Your task to perform on an android device: Open settings on Google Maps Image 0: 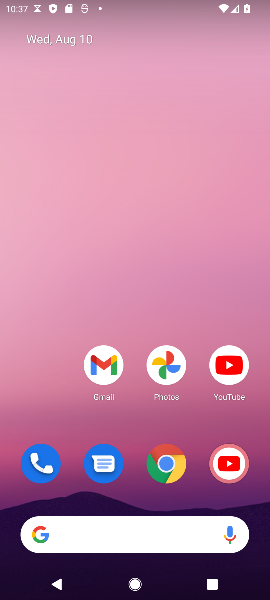
Step 0: drag from (17, 560) to (218, 197)
Your task to perform on an android device: Open settings on Google Maps Image 1: 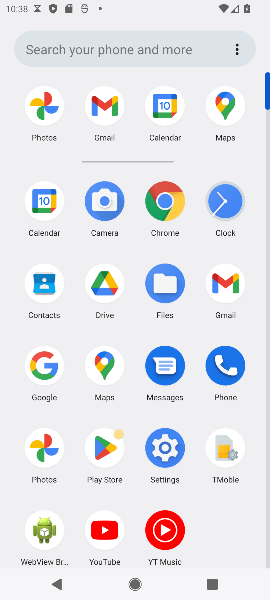
Step 1: click (229, 115)
Your task to perform on an android device: Open settings on Google Maps Image 2: 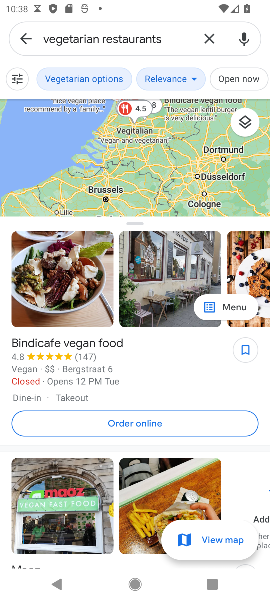
Step 2: click (26, 41)
Your task to perform on an android device: Open settings on Google Maps Image 3: 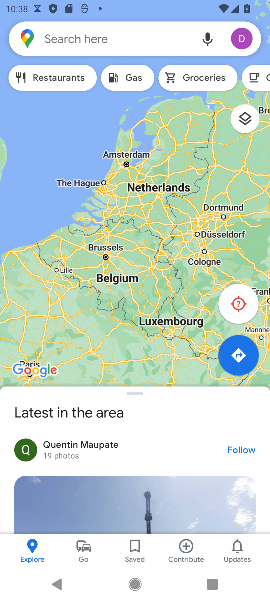
Step 3: task complete